Your task to perform on an android device: change notification settings in the gmail app Image 0: 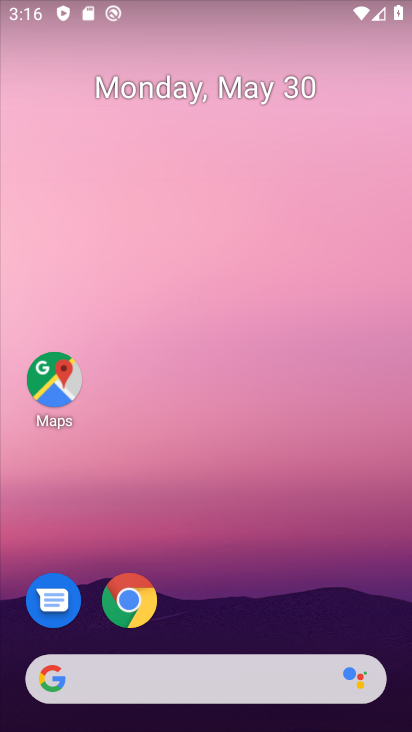
Step 0: drag from (284, 616) to (248, 45)
Your task to perform on an android device: change notification settings in the gmail app Image 1: 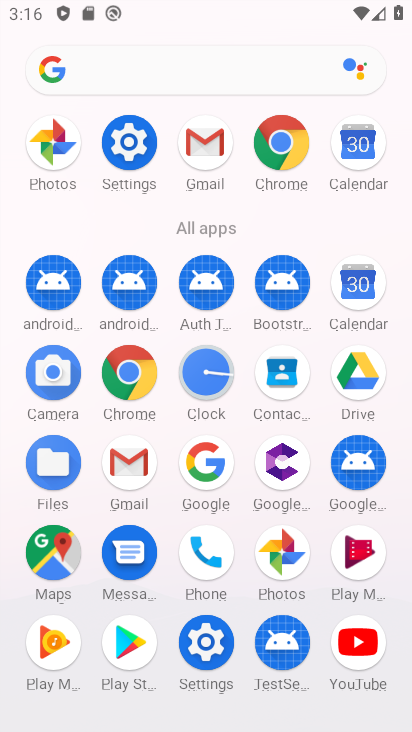
Step 1: click (203, 144)
Your task to perform on an android device: change notification settings in the gmail app Image 2: 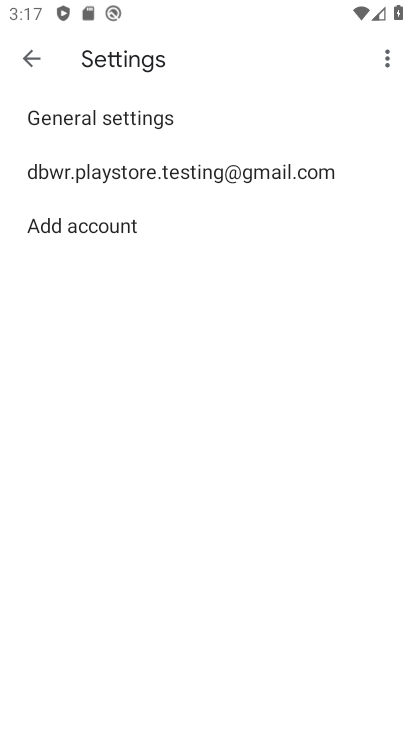
Step 2: click (208, 180)
Your task to perform on an android device: change notification settings in the gmail app Image 3: 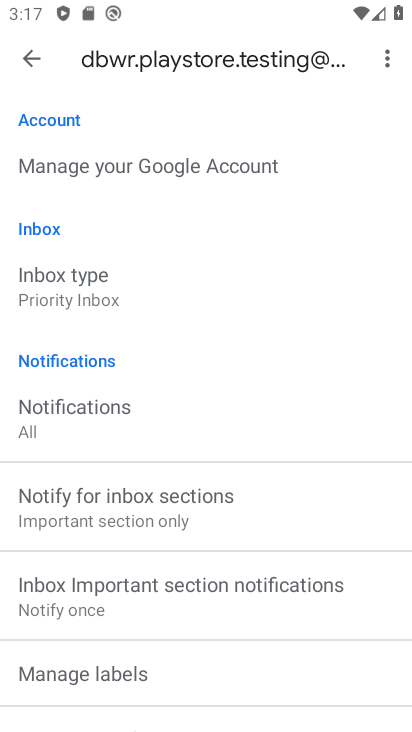
Step 3: drag from (203, 600) to (193, 209)
Your task to perform on an android device: change notification settings in the gmail app Image 4: 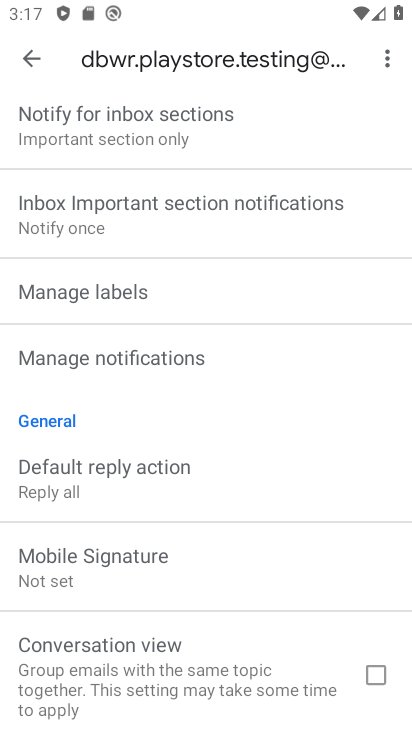
Step 4: click (206, 362)
Your task to perform on an android device: change notification settings in the gmail app Image 5: 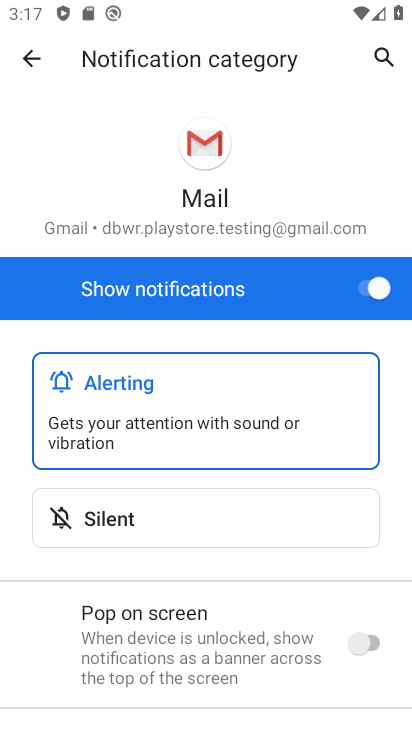
Step 5: click (258, 515)
Your task to perform on an android device: change notification settings in the gmail app Image 6: 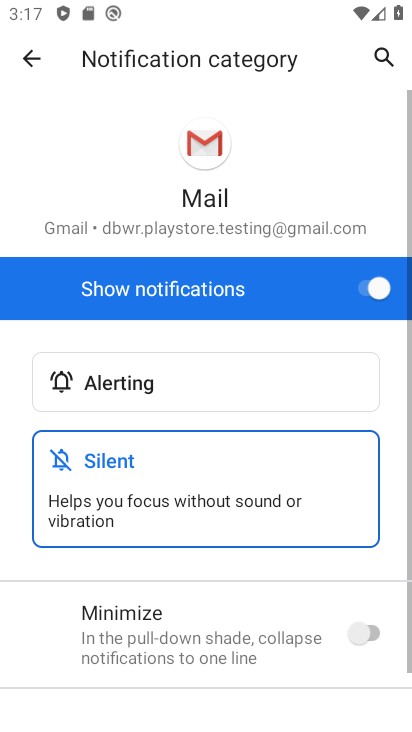
Step 6: click (374, 630)
Your task to perform on an android device: change notification settings in the gmail app Image 7: 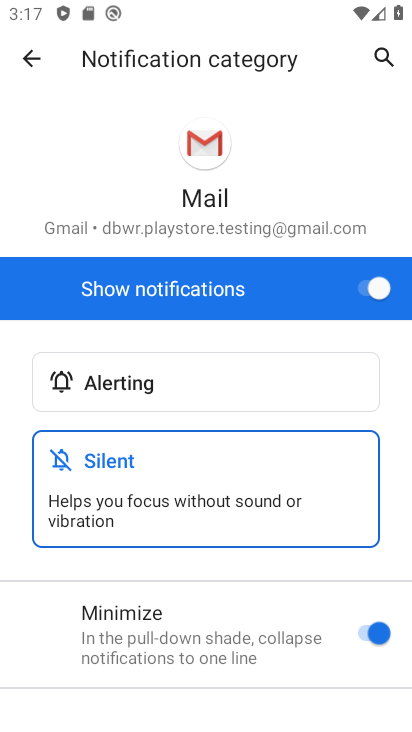
Step 7: task complete